Your task to perform on an android device: Go to settings Image 0: 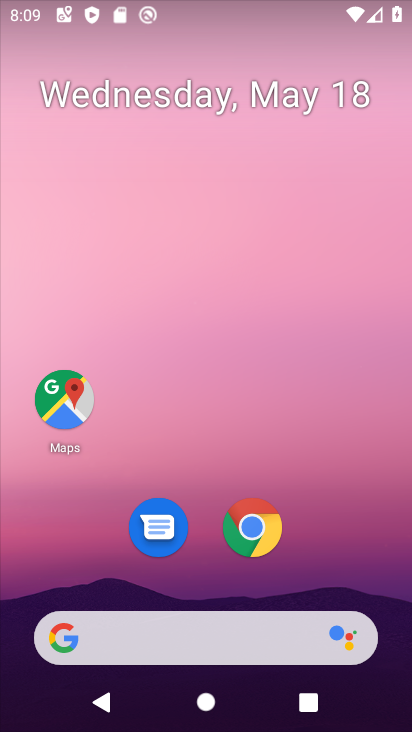
Step 0: drag from (212, 515) to (40, 94)
Your task to perform on an android device: Go to settings Image 1: 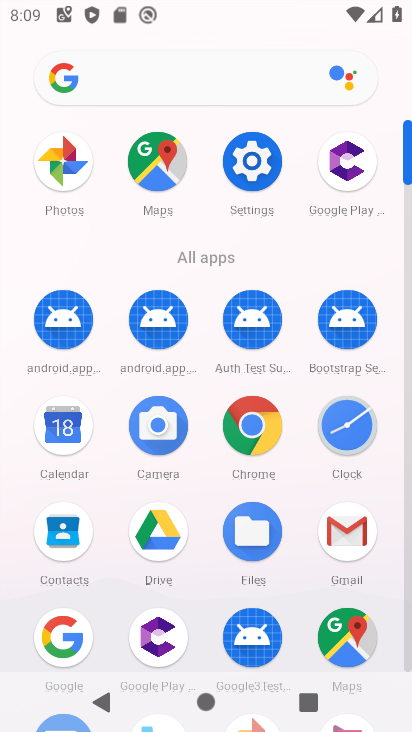
Step 1: click (236, 154)
Your task to perform on an android device: Go to settings Image 2: 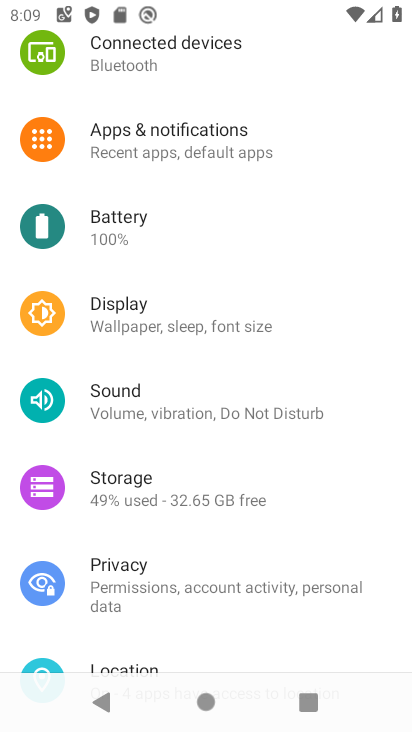
Step 2: task complete